Your task to perform on an android device: uninstall "Facebook" Image 0: 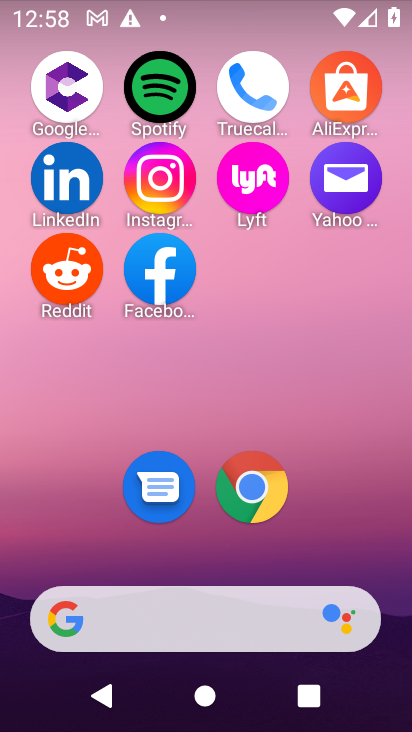
Step 0: drag from (127, 688) to (159, 224)
Your task to perform on an android device: uninstall "Facebook" Image 1: 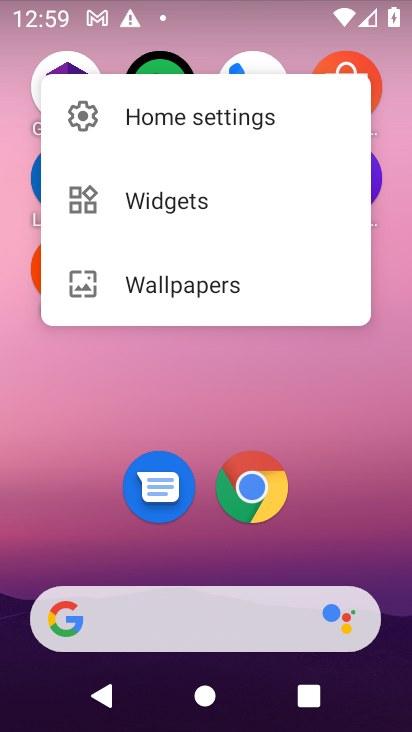
Step 1: click (337, 448)
Your task to perform on an android device: uninstall "Facebook" Image 2: 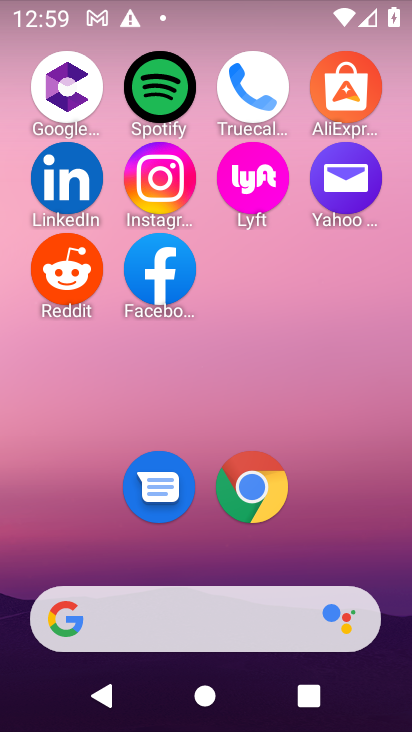
Step 2: drag from (250, 603) to (271, 170)
Your task to perform on an android device: uninstall "Facebook" Image 3: 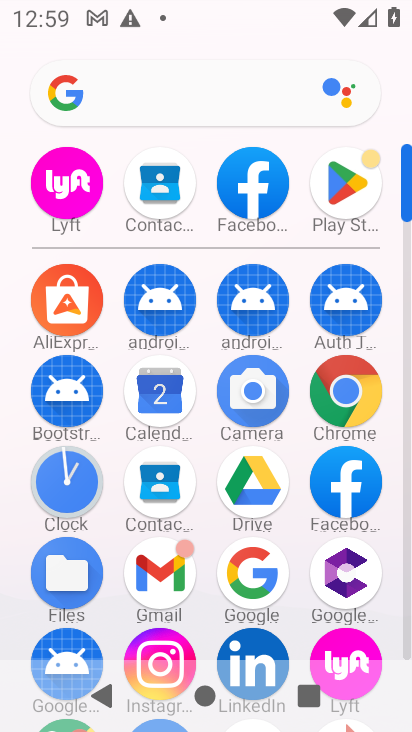
Step 3: click (342, 194)
Your task to perform on an android device: uninstall "Facebook" Image 4: 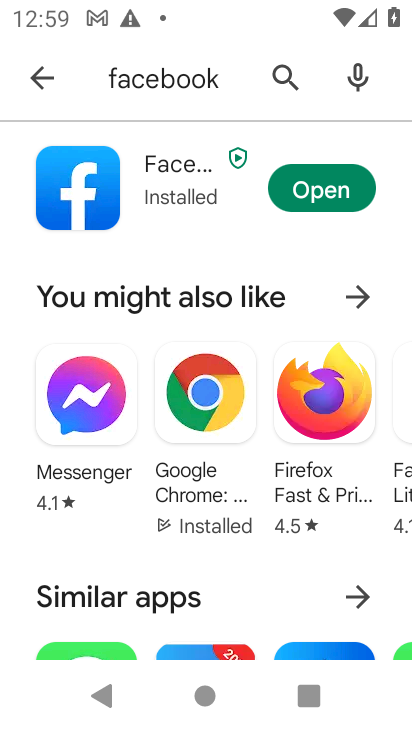
Step 4: click (176, 194)
Your task to perform on an android device: uninstall "Facebook" Image 5: 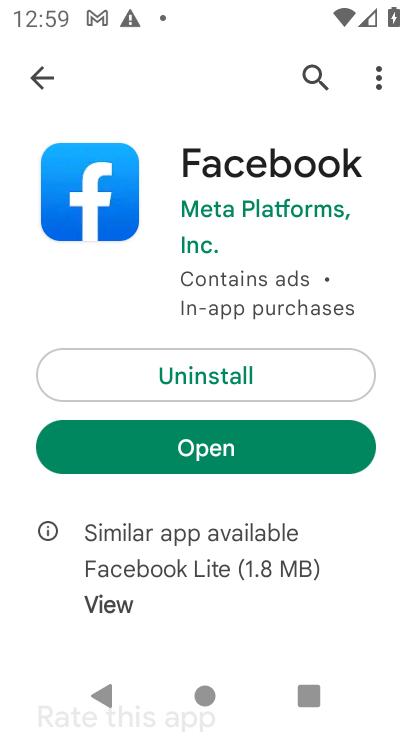
Step 5: click (204, 374)
Your task to perform on an android device: uninstall "Facebook" Image 6: 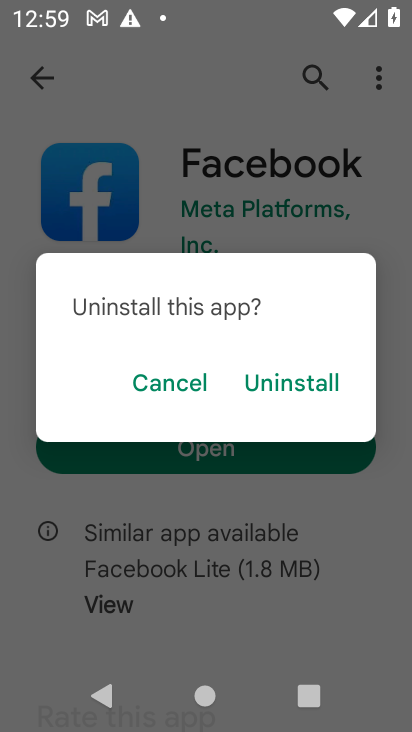
Step 6: click (265, 379)
Your task to perform on an android device: uninstall "Facebook" Image 7: 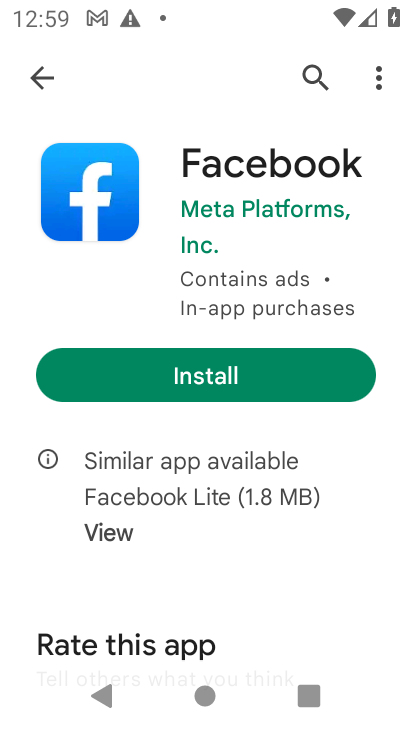
Step 7: task complete